Your task to perform on an android device: Go to network settings Image 0: 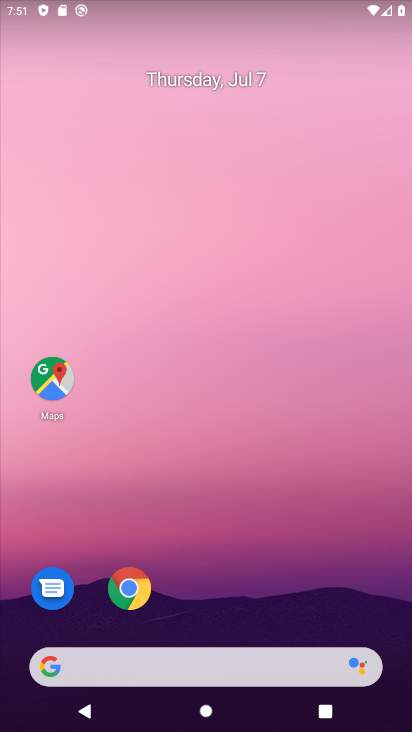
Step 0: drag from (35, 705) to (162, 120)
Your task to perform on an android device: Go to network settings Image 1: 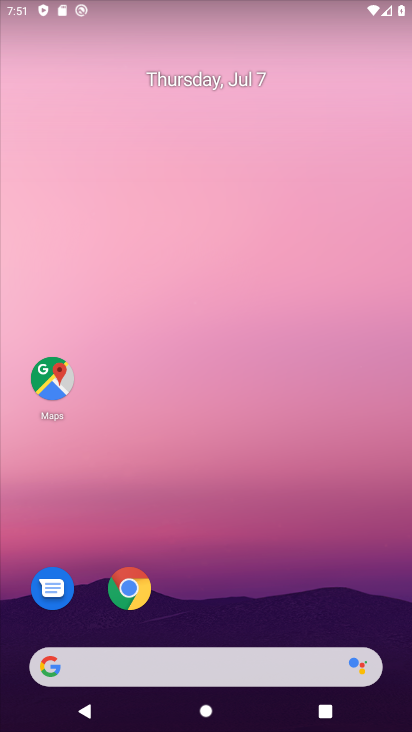
Step 1: drag from (6, 708) to (242, 34)
Your task to perform on an android device: Go to network settings Image 2: 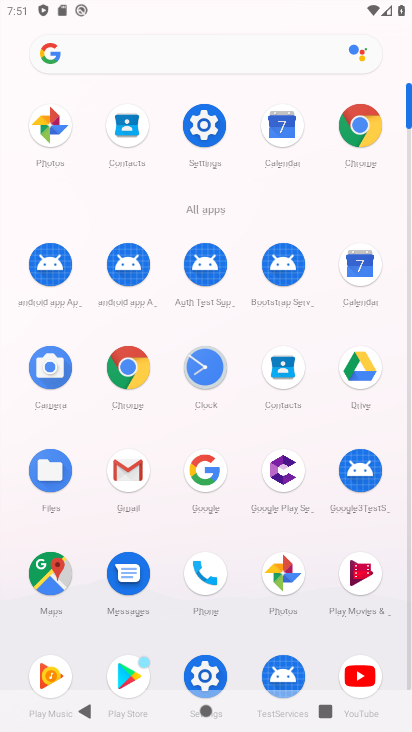
Step 2: click (212, 664)
Your task to perform on an android device: Go to network settings Image 3: 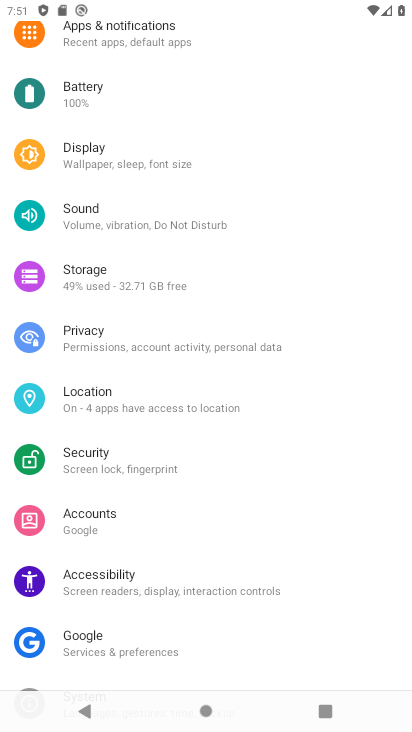
Step 3: drag from (239, 646) to (264, 99)
Your task to perform on an android device: Go to network settings Image 4: 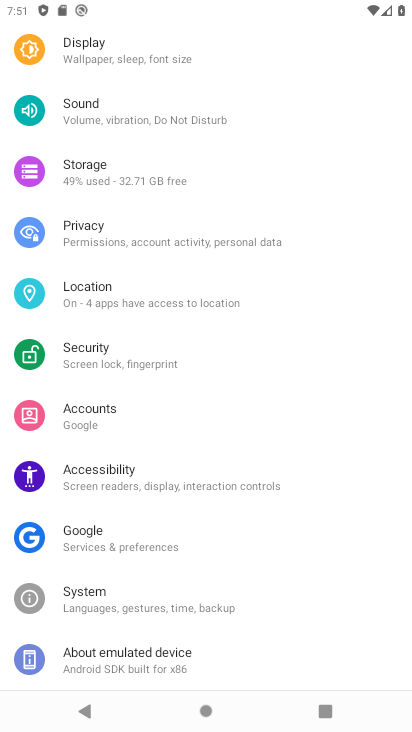
Step 4: drag from (318, 49) to (199, 682)
Your task to perform on an android device: Go to network settings Image 5: 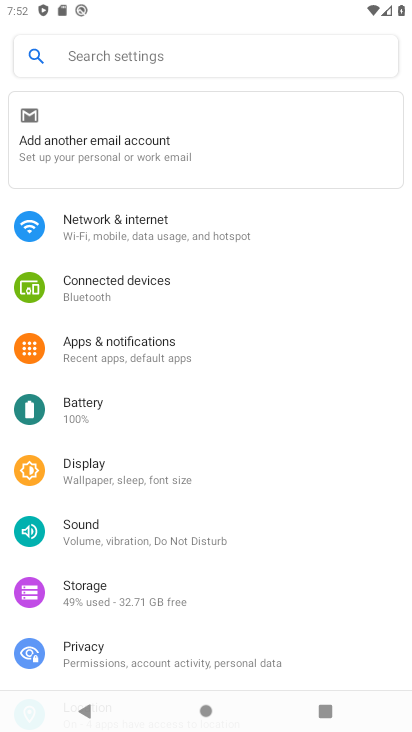
Step 5: click (131, 236)
Your task to perform on an android device: Go to network settings Image 6: 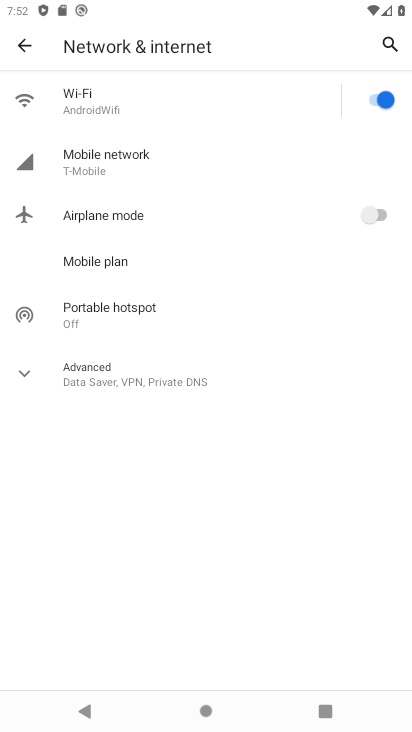
Step 6: click (140, 171)
Your task to perform on an android device: Go to network settings Image 7: 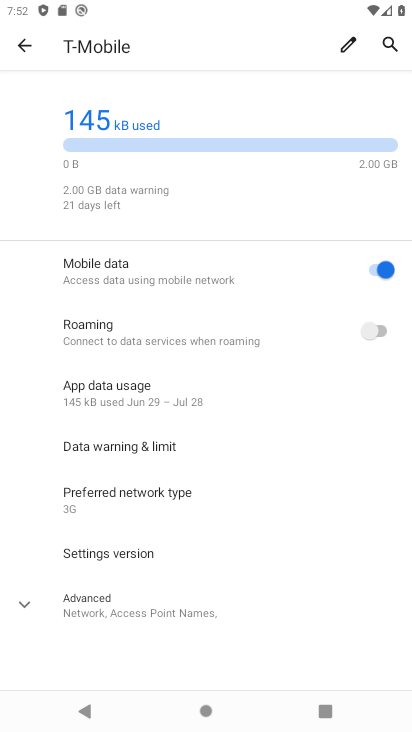
Step 7: task complete